Your task to perform on an android device: Open ESPN.com Image 0: 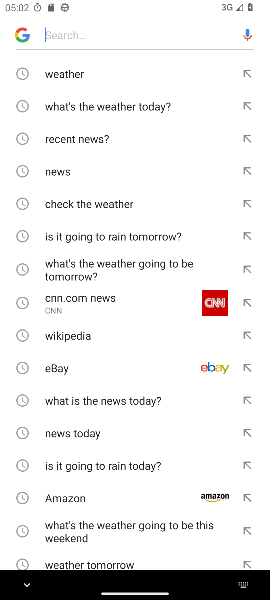
Step 0: type "ESPN.com"
Your task to perform on an android device: Open ESPN.com Image 1: 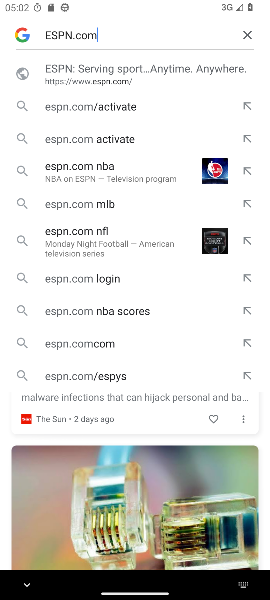
Step 1: type ""
Your task to perform on an android device: Open ESPN.com Image 2: 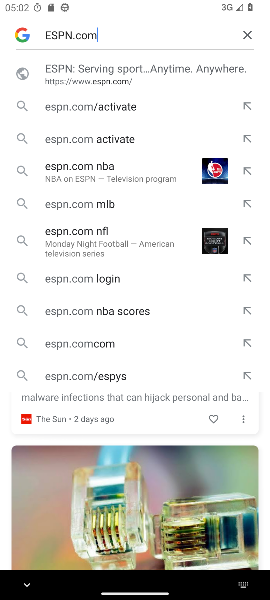
Step 2: click (85, 67)
Your task to perform on an android device: Open ESPN.com Image 3: 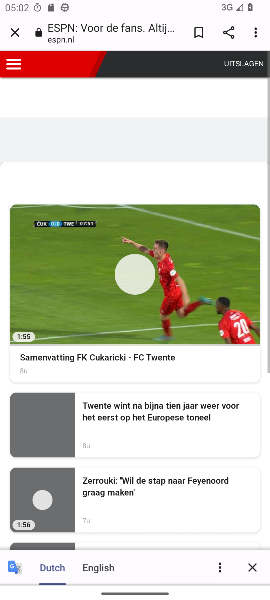
Step 3: task complete